Your task to perform on an android device: remove spam from my inbox in the gmail app Image 0: 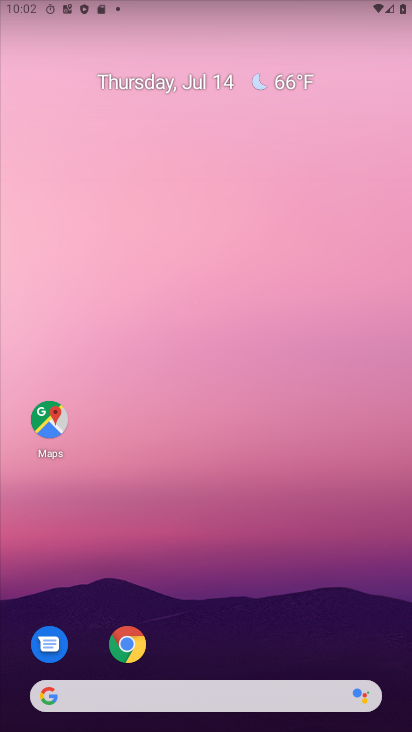
Step 0: click (180, 240)
Your task to perform on an android device: remove spam from my inbox in the gmail app Image 1: 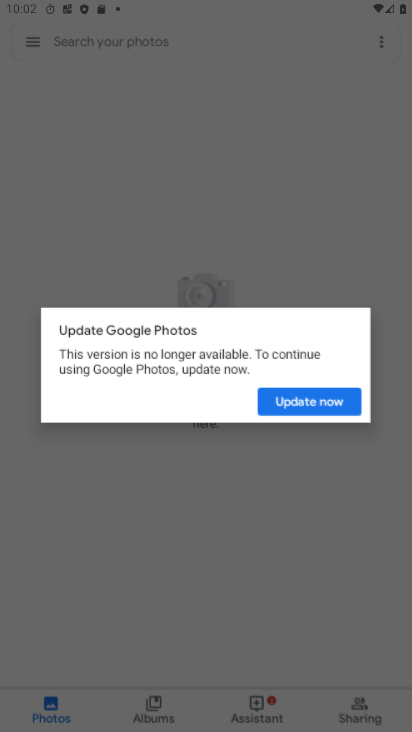
Step 1: drag from (231, 660) to (185, 28)
Your task to perform on an android device: remove spam from my inbox in the gmail app Image 2: 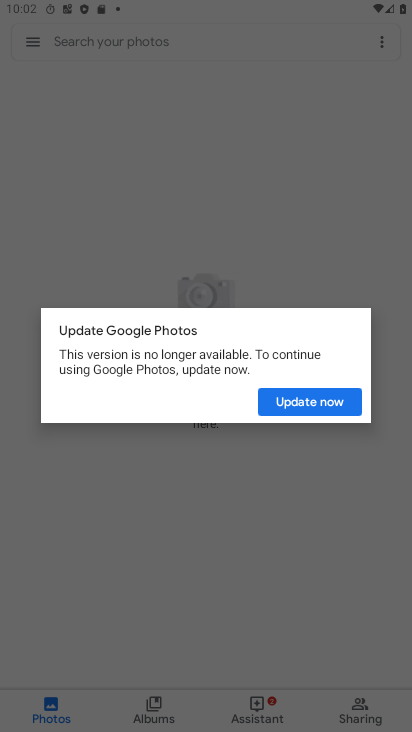
Step 2: click (191, 207)
Your task to perform on an android device: remove spam from my inbox in the gmail app Image 3: 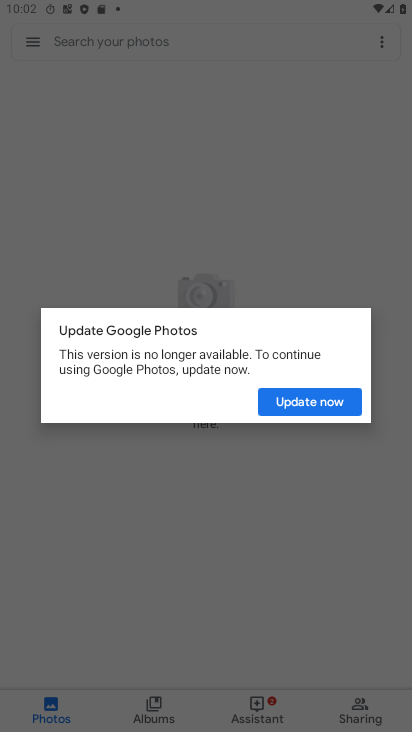
Step 3: click (191, 207)
Your task to perform on an android device: remove spam from my inbox in the gmail app Image 4: 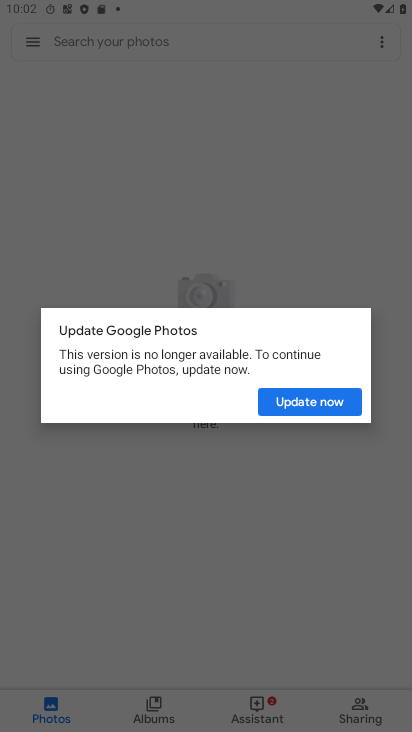
Step 4: click (192, 207)
Your task to perform on an android device: remove spam from my inbox in the gmail app Image 5: 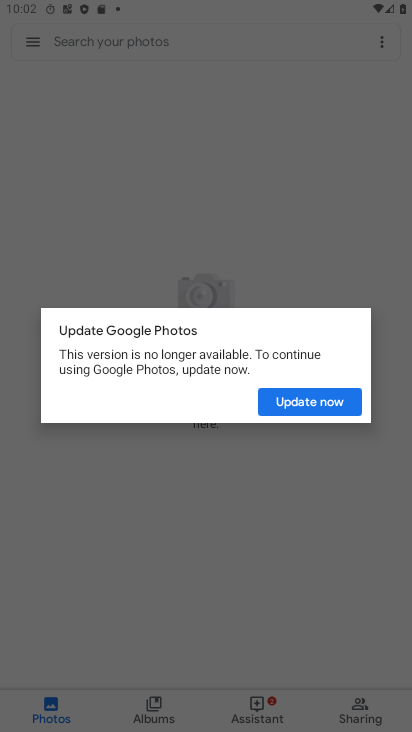
Step 5: click (192, 207)
Your task to perform on an android device: remove spam from my inbox in the gmail app Image 6: 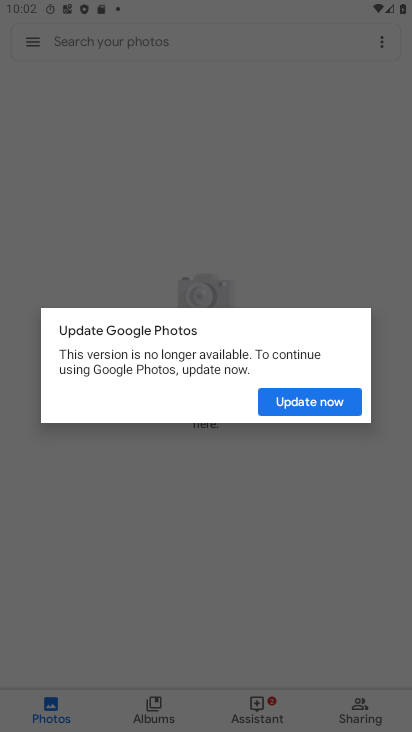
Step 6: press back button
Your task to perform on an android device: remove spam from my inbox in the gmail app Image 7: 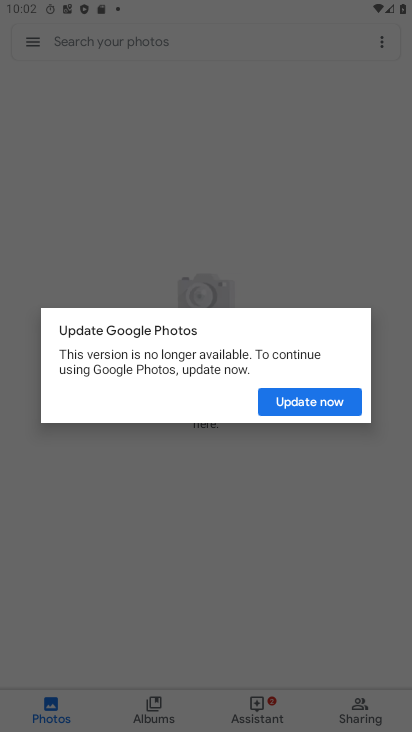
Step 7: press back button
Your task to perform on an android device: remove spam from my inbox in the gmail app Image 8: 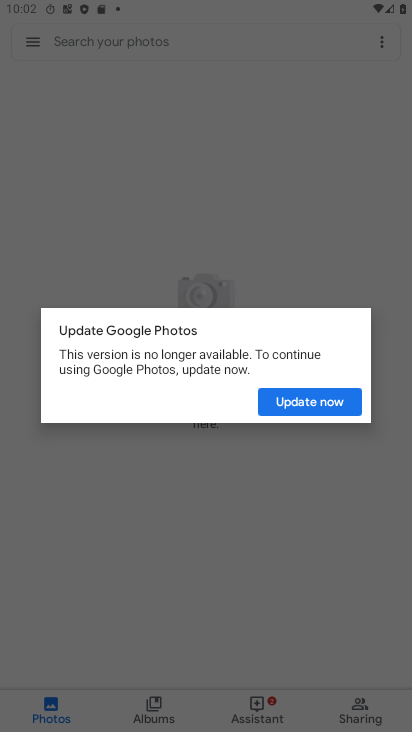
Step 8: press home button
Your task to perform on an android device: remove spam from my inbox in the gmail app Image 9: 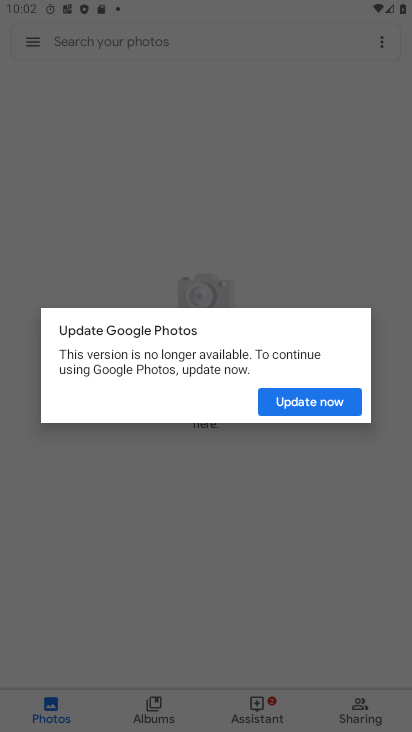
Step 9: press home button
Your task to perform on an android device: remove spam from my inbox in the gmail app Image 10: 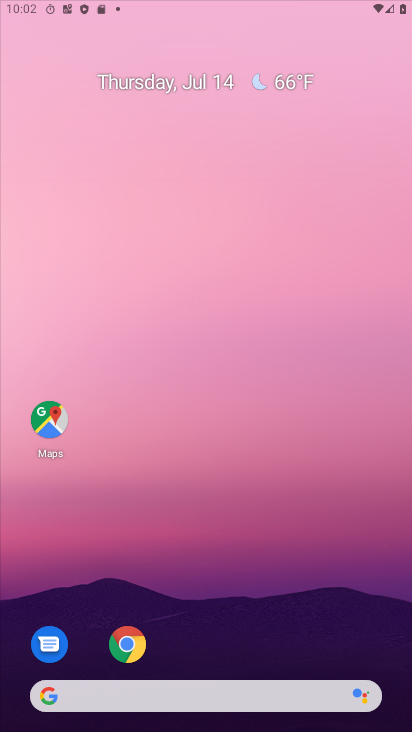
Step 10: press home button
Your task to perform on an android device: remove spam from my inbox in the gmail app Image 11: 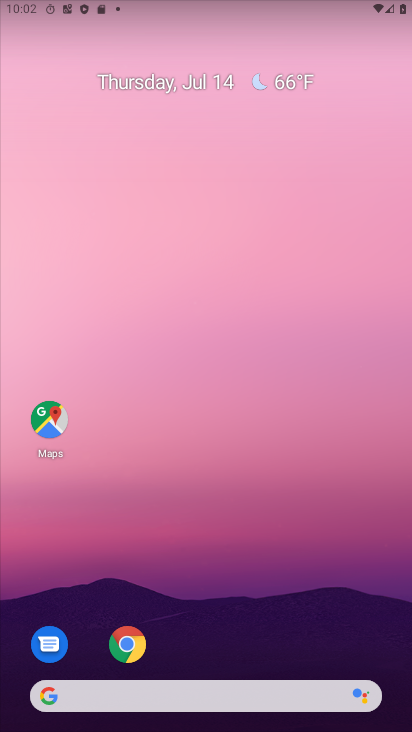
Step 11: press back button
Your task to perform on an android device: remove spam from my inbox in the gmail app Image 12: 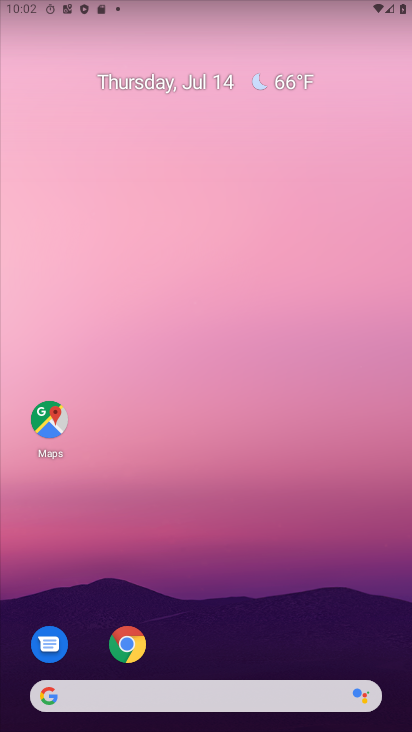
Step 12: drag from (234, 621) to (161, 169)
Your task to perform on an android device: remove spam from my inbox in the gmail app Image 13: 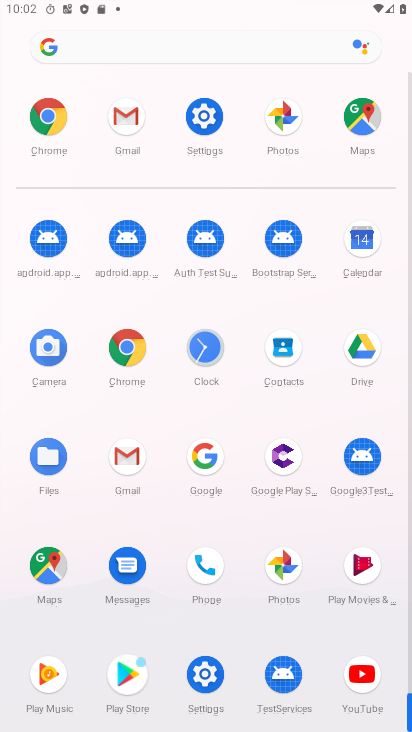
Step 13: click (123, 463)
Your task to perform on an android device: remove spam from my inbox in the gmail app Image 14: 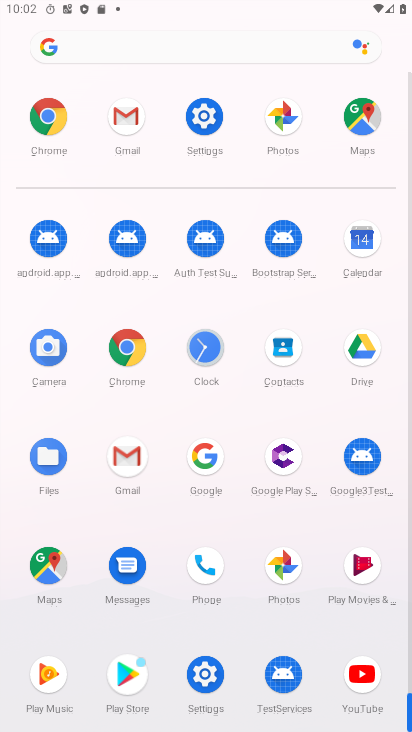
Step 14: click (124, 464)
Your task to perform on an android device: remove spam from my inbox in the gmail app Image 15: 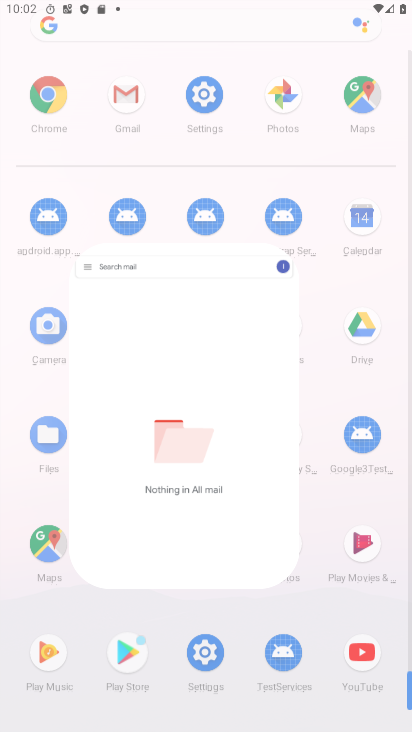
Step 15: click (125, 464)
Your task to perform on an android device: remove spam from my inbox in the gmail app Image 16: 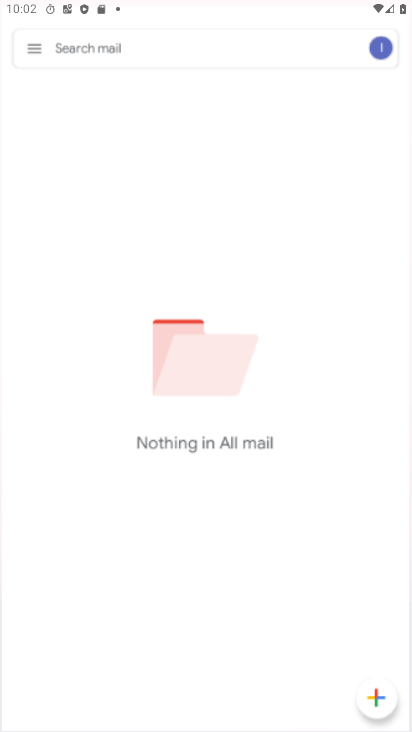
Step 16: click (127, 462)
Your task to perform on an android device: remove spam from my inbox in the gmail app Image 17: 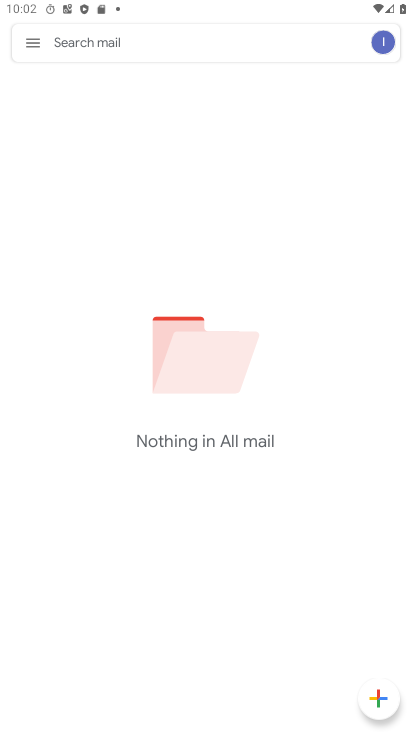
Step 17: drag from (30, 46) to (78, 371)
Your task to perform on an android device: remove spam from my inbox in the gmail app Image 18: 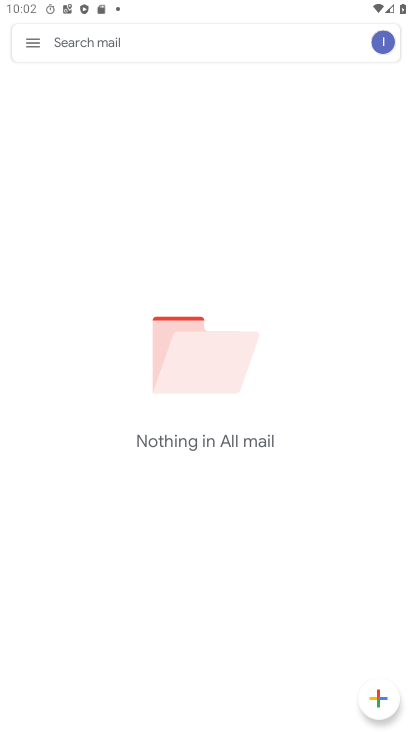
Step 18: drag from (36, 40) to (59, 82)
Your task to perform on an android device: remove spam from my inbox in the gmail app Image 19: 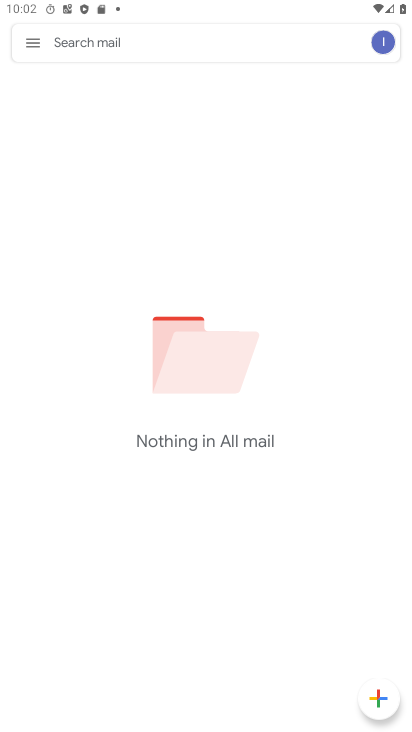
Step 19: drag from (40, 48) to (85, 287)
Your task to perform on an android device: remove spam from my inbox in the gmail app Image 20: 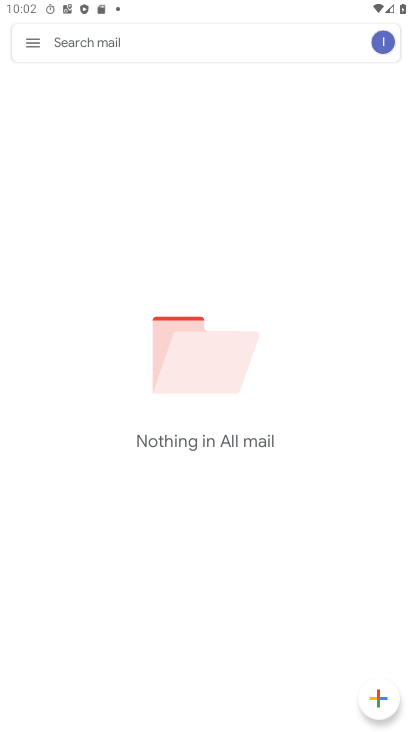
Step 20: click (38, 56)
Your task to perform on an android device: remove spam from my inbox in the gmail app Image 21: 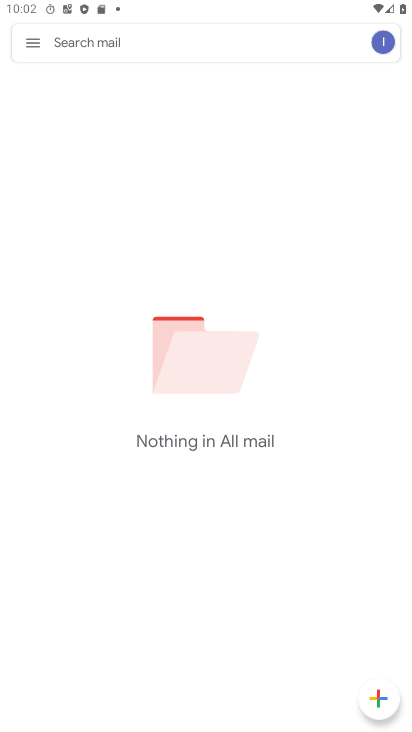
Step 21: drag from (35, 52) to (372, 425)
Your task to perform on an android device: remove spam from my inbox in the gmail app Image 22: 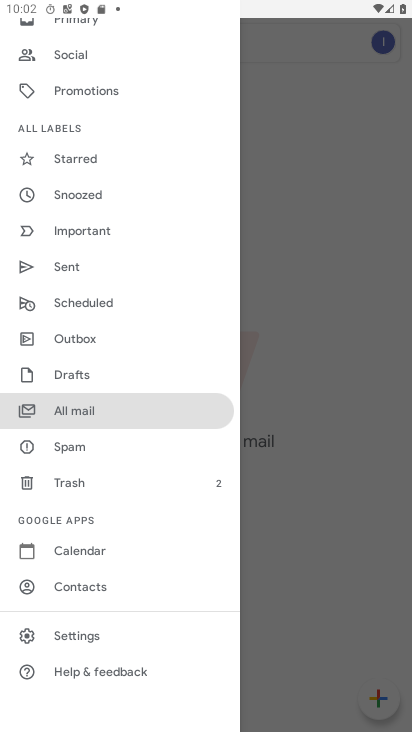
Step 22: click (71, 439)
Your task to perform on an android device: remove spam from my inbox in the gmail app Image 23: 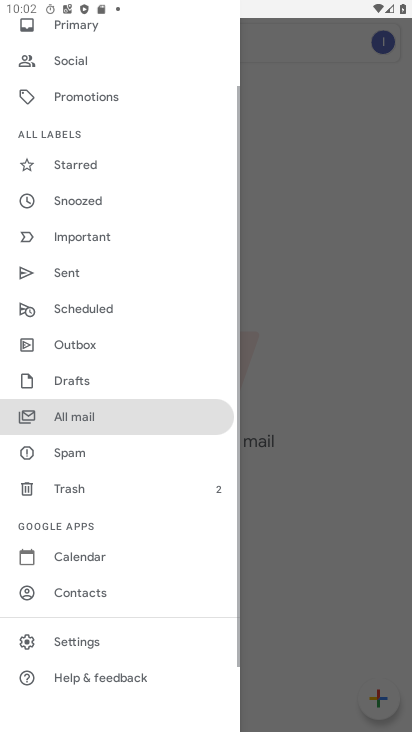
Step 23: click (85, 449)
Your task to perform on an android device: remove spam from my inbox in the gmail app Image 24: 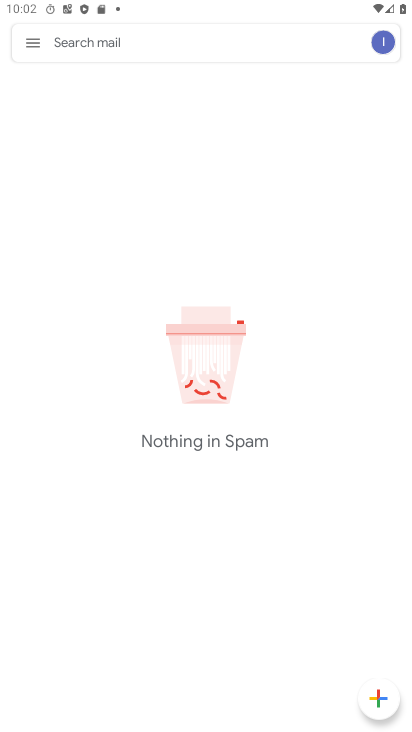
Step 24: task complete